Your task to perform on an android device: Open Wikipedia Image 0: 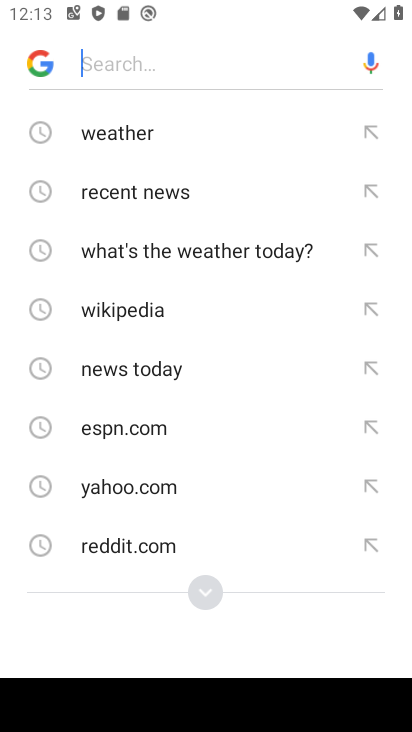
Step 0: press back button
Your task to perform on an android device: Open Wikipedia Image 1: 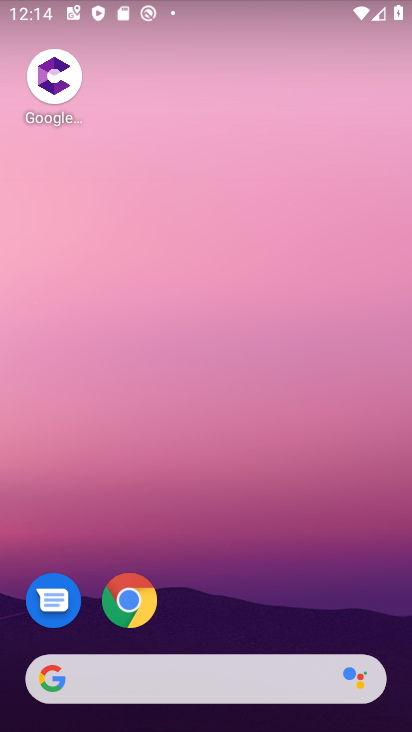
Step 1: drag from (205, 667) to (147, 35)
Your task to perform on an android device: Open Wikipedia Image 2: 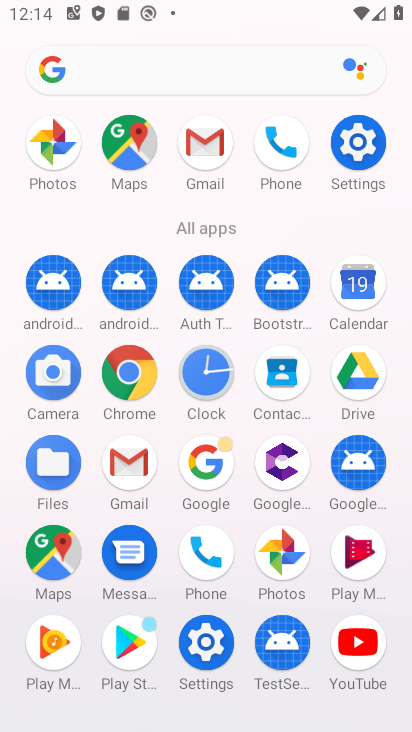
Step 2: click (128, 391)
Your task to perform on an android device: Open Wikipedia Image 3: 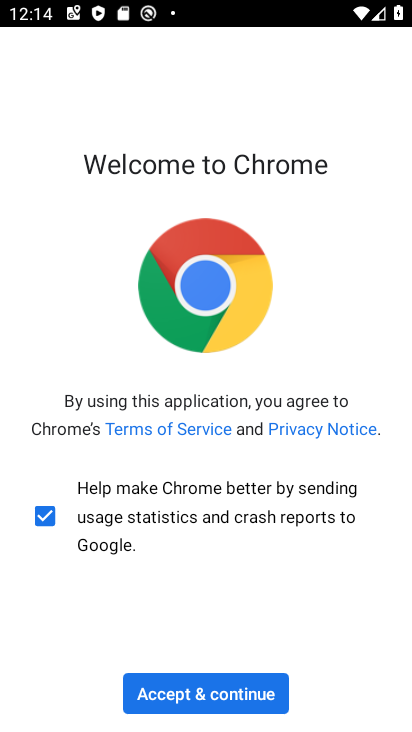
Step 3: click (239, 705)
Your task to perform on an android device: Open Wikipedia Image 4: 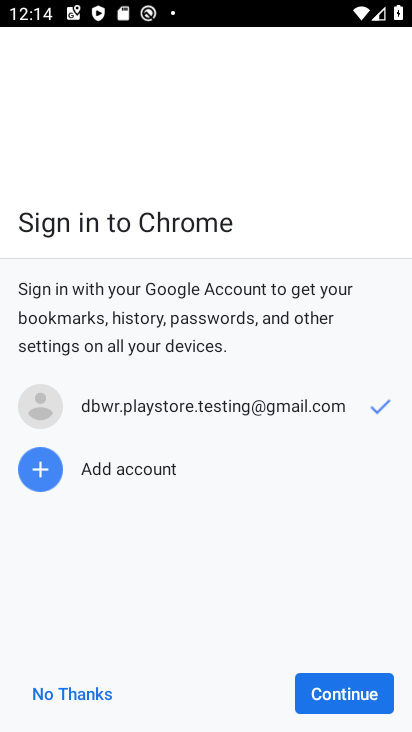
Step 4: click (354, 704)
Your task to perform on an android device: Open Wikipedia Image 5: 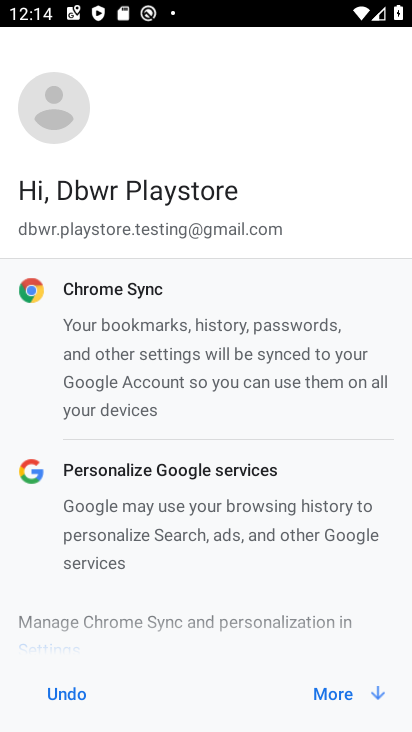
Step 5: click (354, 704)
Your task to perform on an android device: Open Wikipedia Image 6: 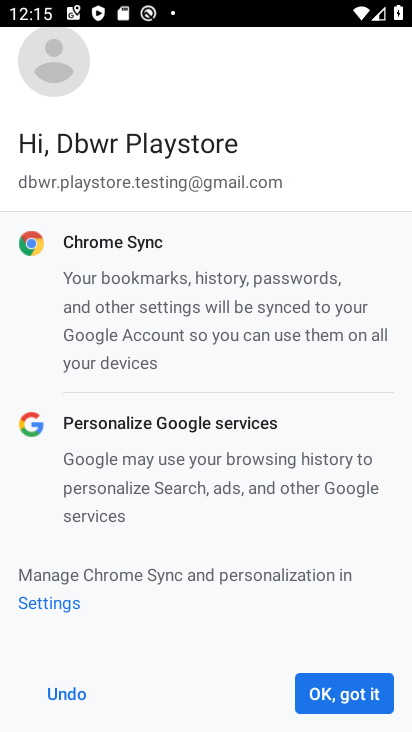
Step 6: click (344, 694)
Your task to perform on an android device: Open Wikipedia Image 7: 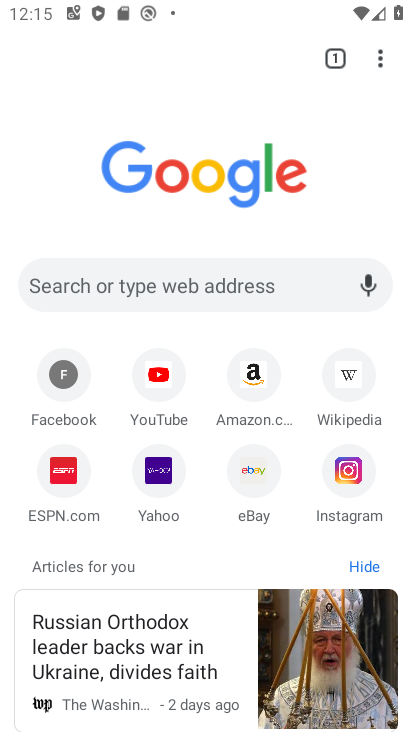
Step 7: click (339, 389)
Your task to perform on an android device: Open Wikipedia Image 8: 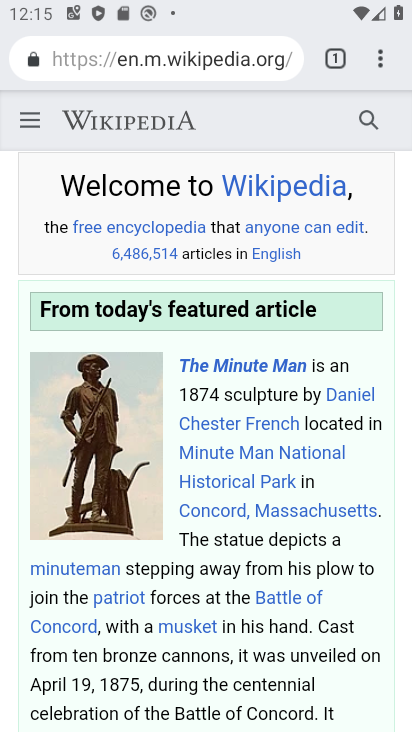
Step 8: task complete